Your task to perform on an android device: Search for the best rated headphones on Amazon. Image 0: 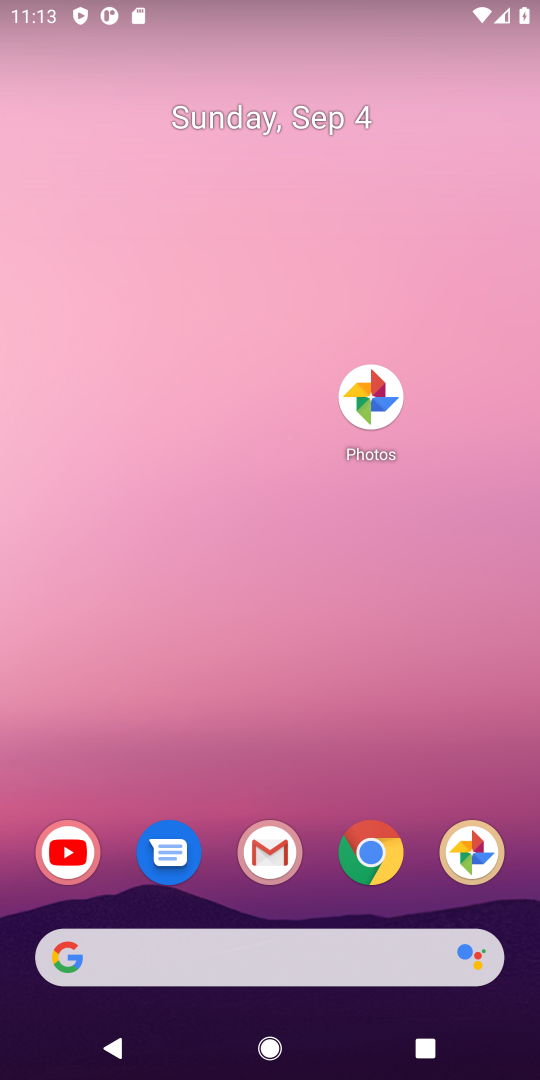
Step 0: drag from (326, 886) to (73, 68)
Your task to perform on an android device: Search for the best rated headphones on Amazon. Image 1: 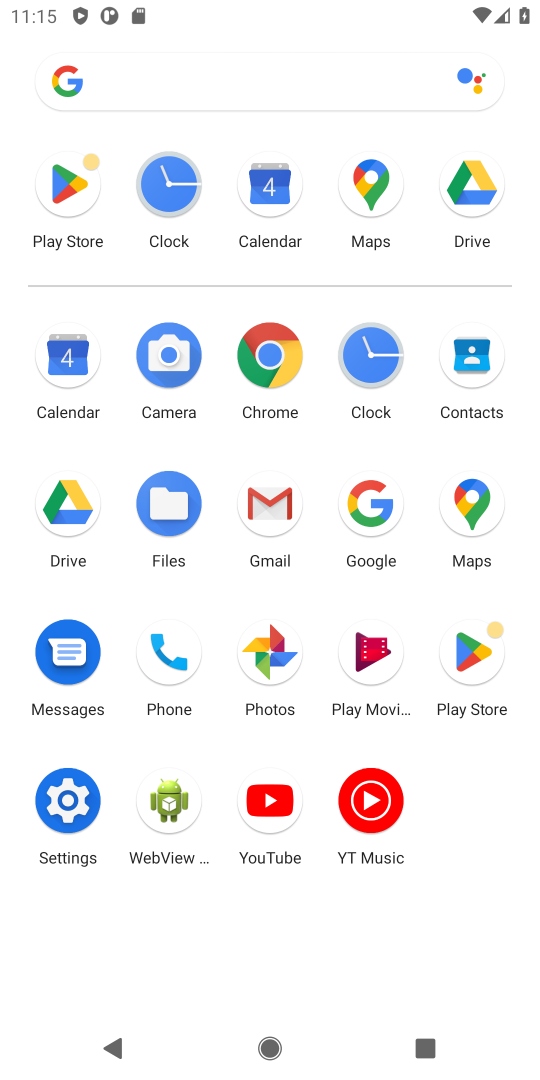
Step 1: click (383, 497)
Your task to perform on an android device: Search for the best rated headphones on Amazon. Image 2: 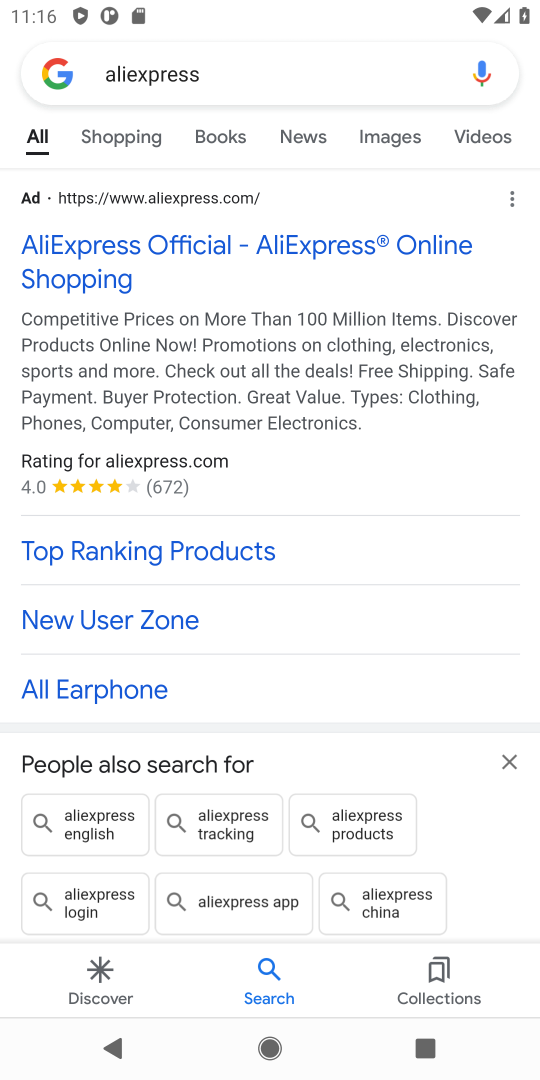
Step 2: press back button
Your task to perform on an android device: Search for the best rated headphones on Amazon. Image 3: 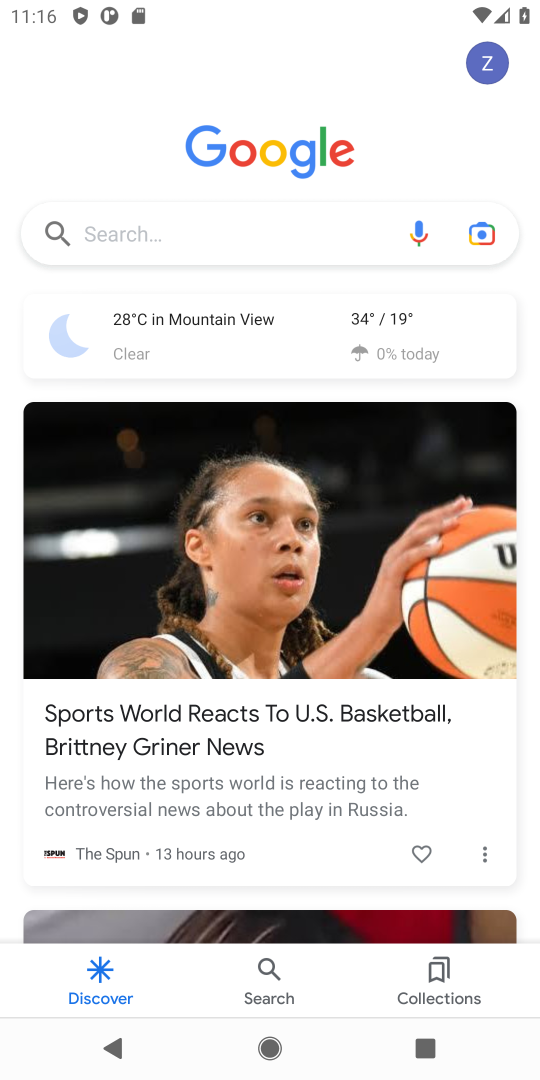
Step 3: click (152, 233)
Your task to perform on an android device: Search for the best rated headphones on Amazon. Image 4: 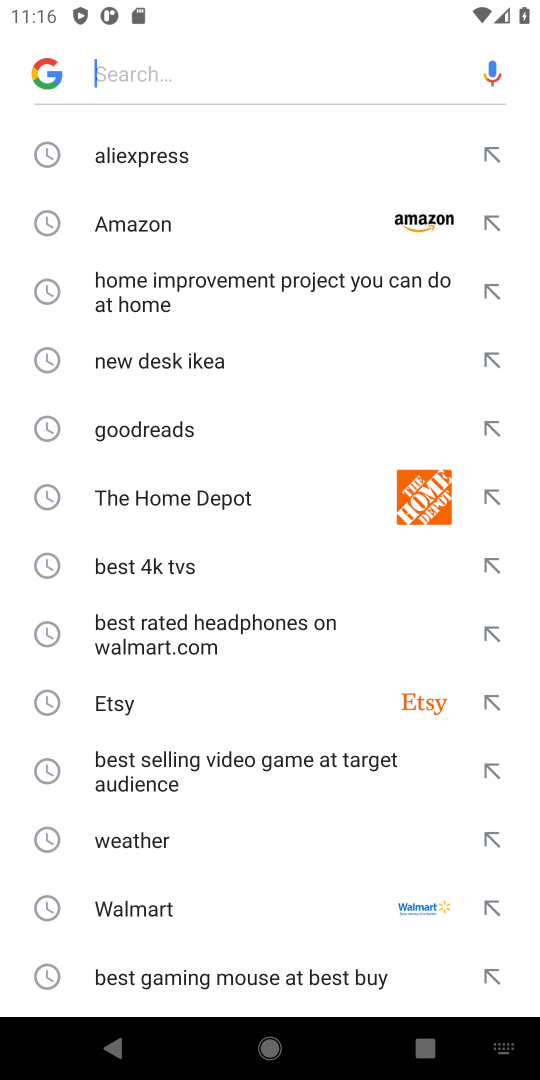
Step 4: click (148, 224)
Your task to perform on an android device: Search for the best rated headphones on Amazon. Image 5: 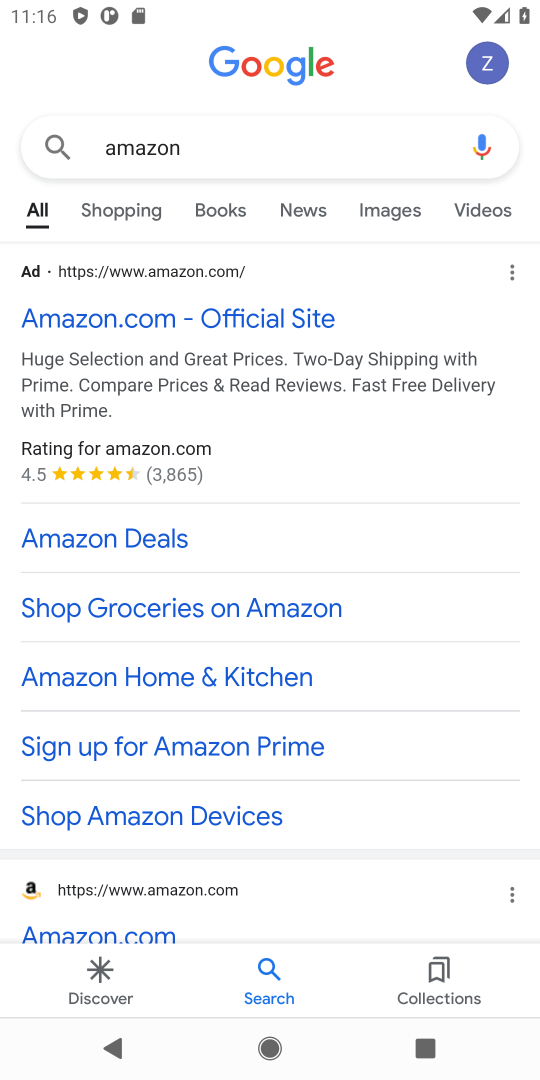
Step 5: click (184, 327)
Your task to perform on an android device: Search for the best rated headphones on Amazon. Image 6: 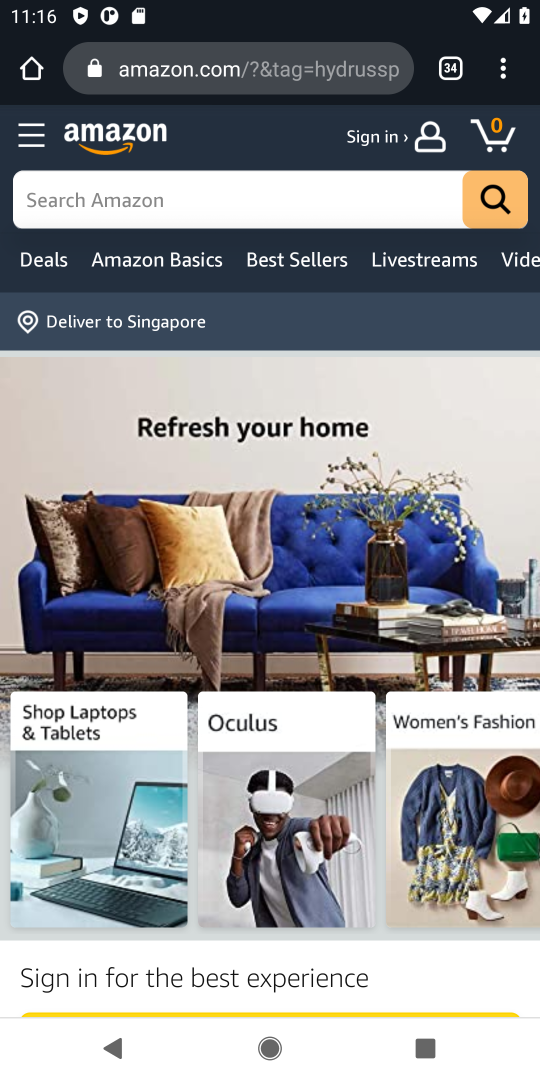
Step 6: click (103, 195)
Your task to perform on an android device: Search for the best rated headphones on Amazon. Image 7: 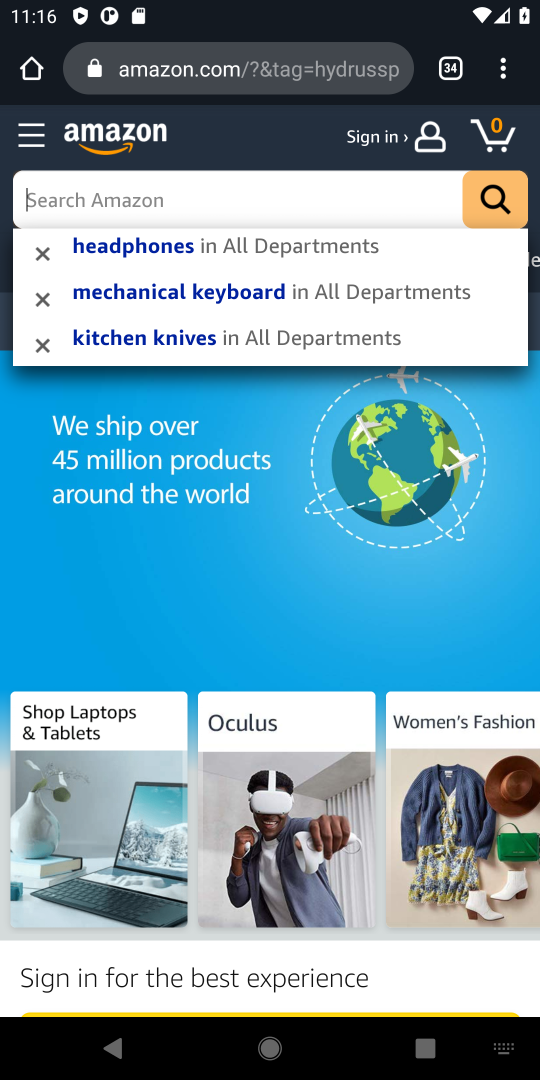
Step 7: click (177, 255)
Your task to perform on an android device: Search for the best rated headphones on Amazon. Image 8: 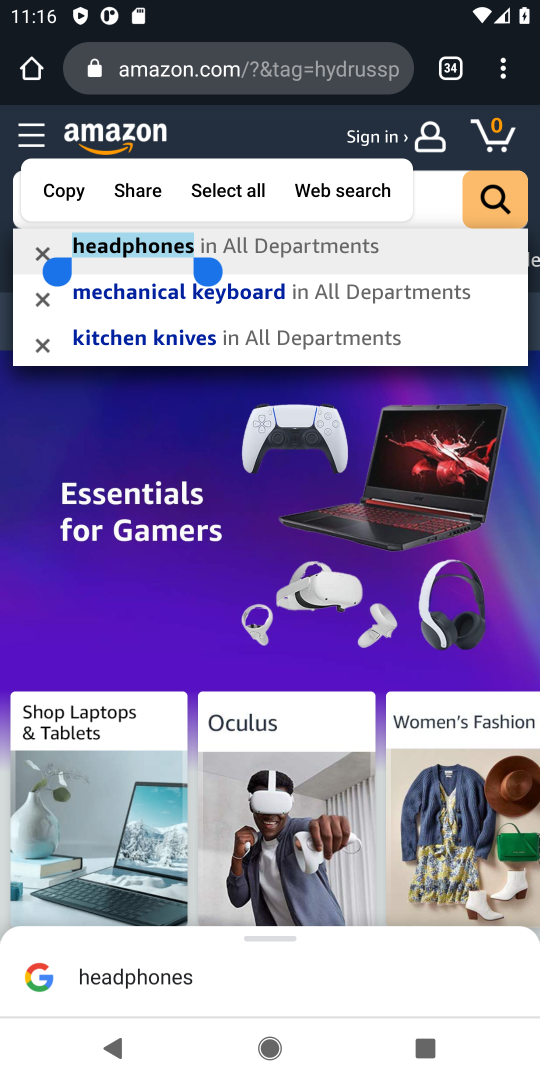
Step 8: click (489, 189)
Your task to perform on an android device: Search for the best rated headphones on Amazon. Image 9: 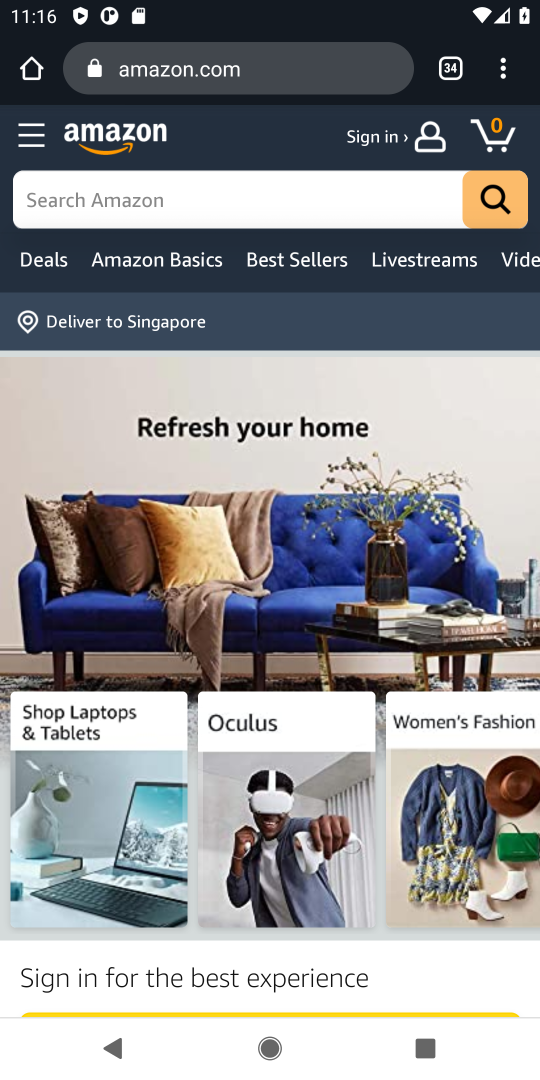
Step 9: task complete